Your task to perform on an android device: delete the emails in spam in the gmail app Image 0: 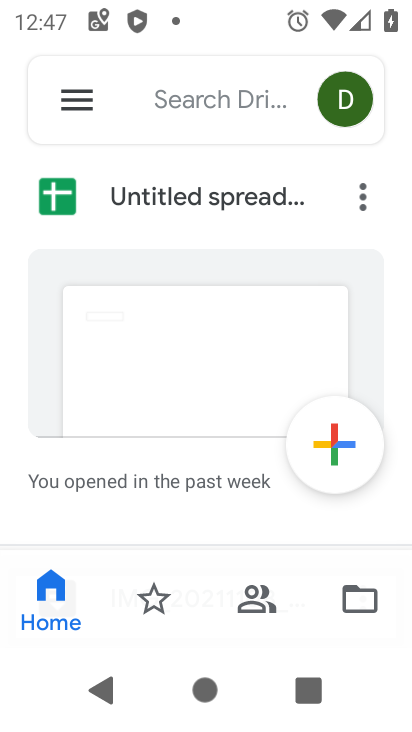
Step 0: press home button
Your task to perform on an android device: delete the emails in spam in the gmail app Image 1: 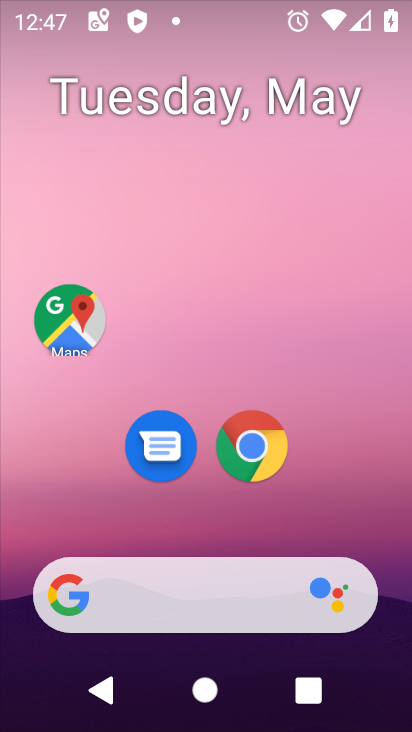
Step 1: drag from (298, 553) to (333, 226)
Your task to perform on an android device: delete the emails in spam in the gmail app Image 2: 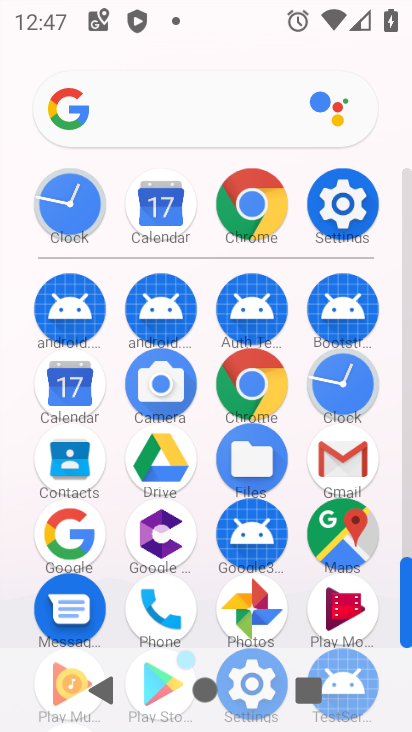
Step 2: click (346, 454)
Your task to perform on an android device: delete the emails in spam in the gmail app Image 3: 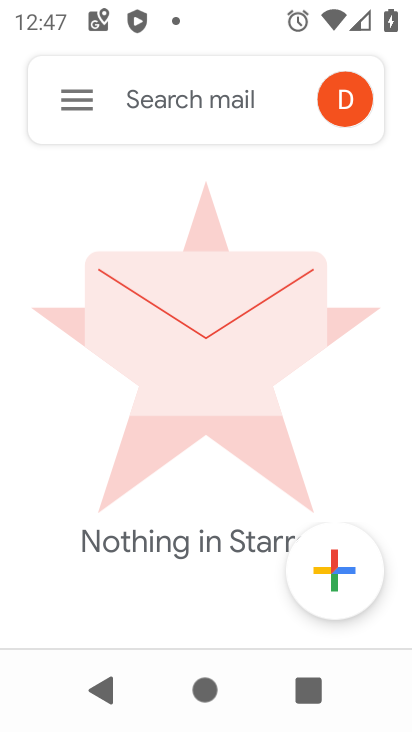
Step 3: click (64, 91)
Your task to perform on an android device: delete the emails in spam in the gmail app Image 4: 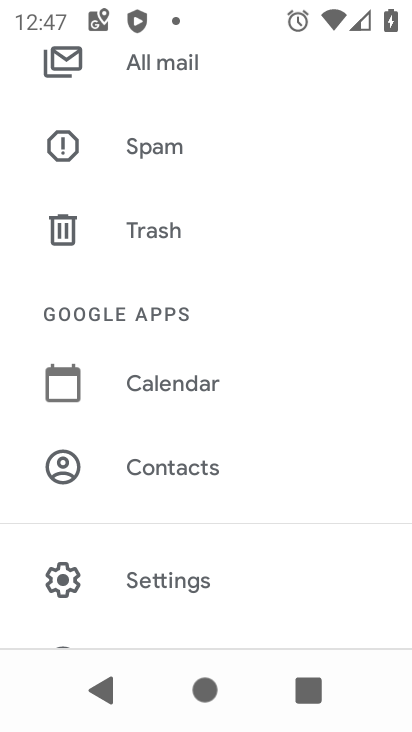
Step 4: drag from (166, 216) to (154, 654)
Your task to perform on an android device: delete the emails in spam in the gmail app Image 5: 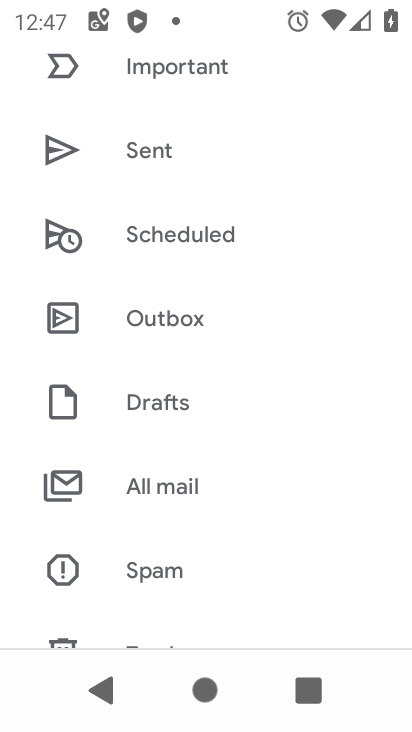
Step 5: click (104, 685)
Your task to perform on an android device: delete the emails in spam in the gmail app Image 6: 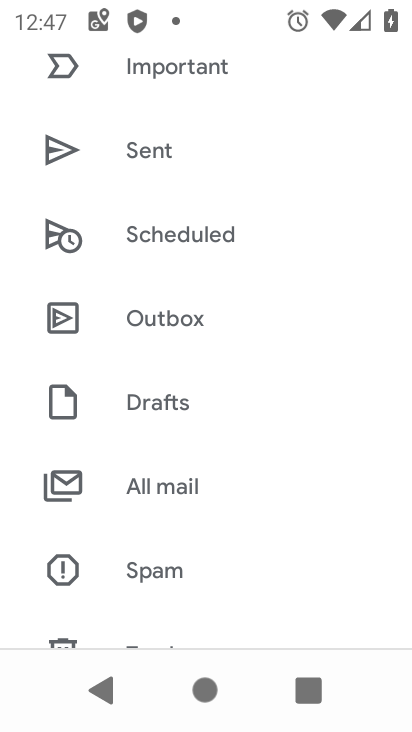
Step 6: drag from (184, 144) to (302, 141)
Your task to perform on an android device: delete the emails in spam in the gmail app Image 7: 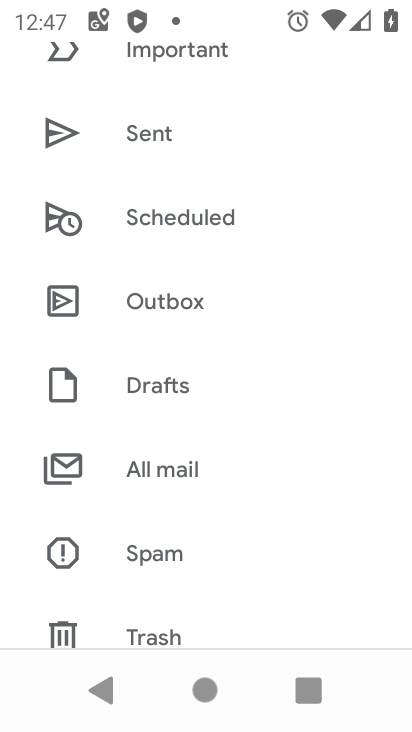
Step 7: click (153, 547)
Your task to perform on an android device: delete the emails in spam in the gmail app Image 8: 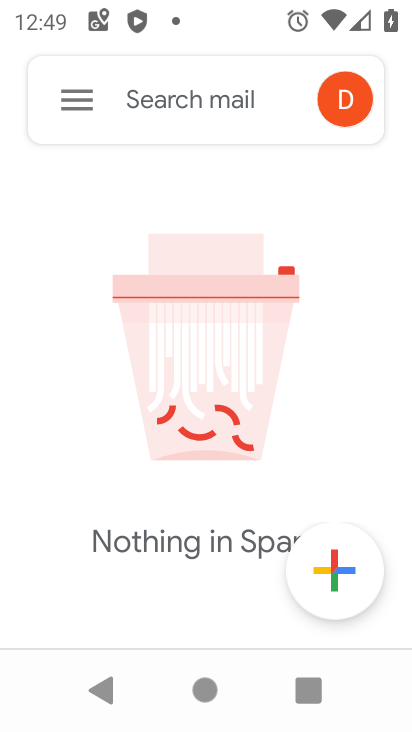
Step 8: task complete